Your task to perform on an android device: snooze an email in the gmail app Image 0: 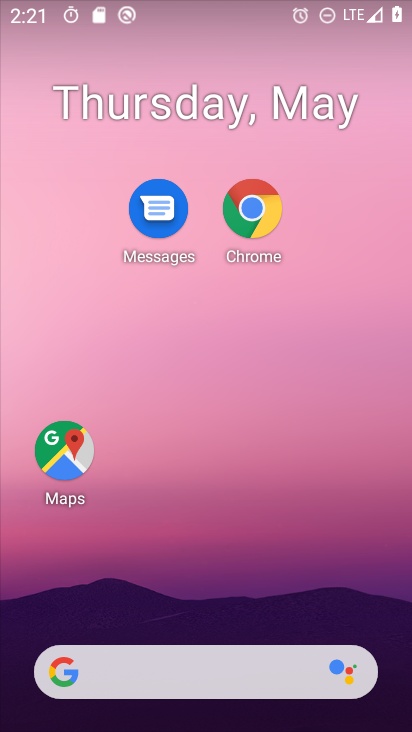
Step 0: drag from (186, 593) to (172, 0)
Your task to perform on an android device: snooze an email in the gmail app Image 1: 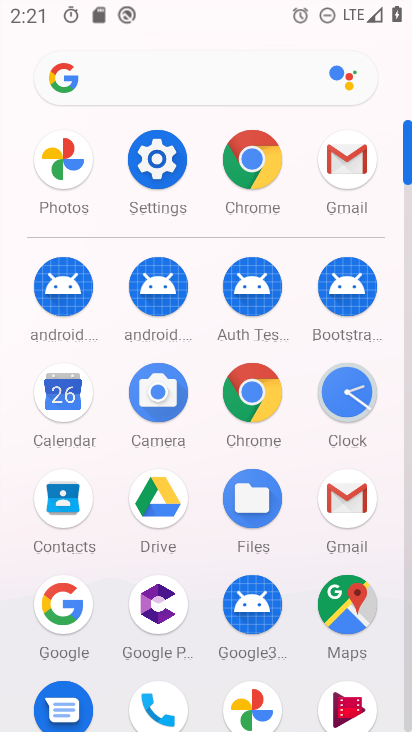
Step 1: click (349, 176)
Your task to perform on an android device: snooze an email in the gmail app Image 2: 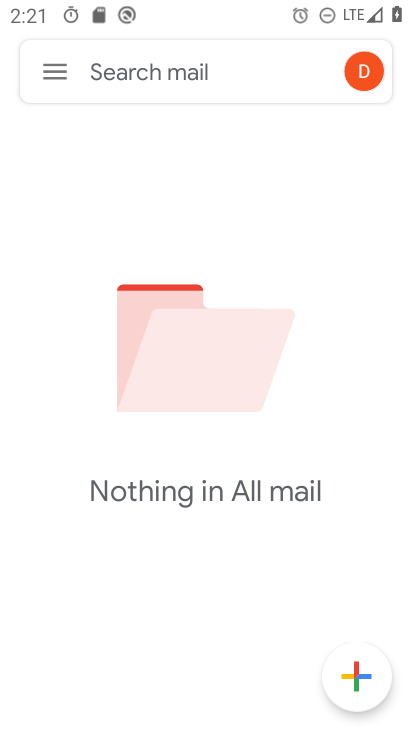
Step 2: task complete